Your task to perform on an android device: Open Google Maps Image 0: 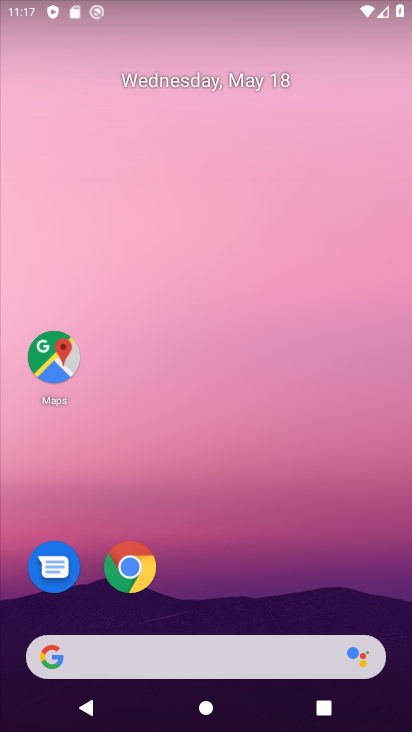
Step 0: click (57, 360)
Your task to perform on an android device: Open Google Maps Image 1: 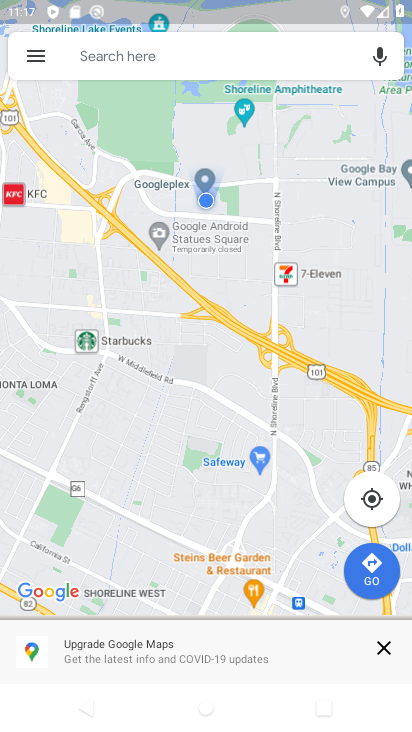
Step 1: task complete